Your task to perform on an android device: see creations saved in the google photos Image 0: 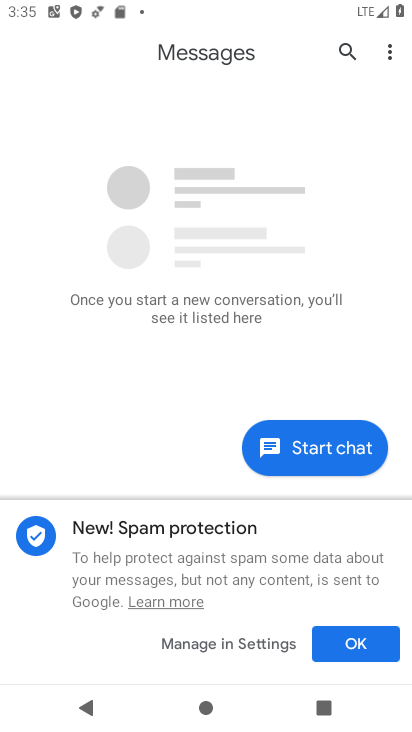
Step 0: press home button
Your task to perform on an android device: see creations saved in the google photos Image 1: 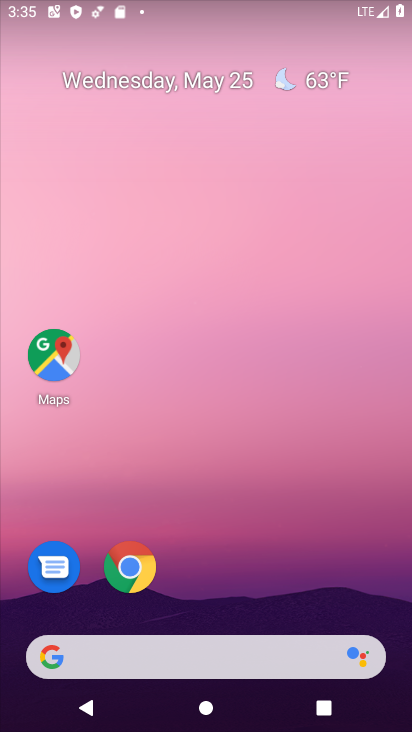
Step 1: drag from (239, 571) to (310, 36)
Your task to perform on an android device: see creations saved in the google photos Image 2: 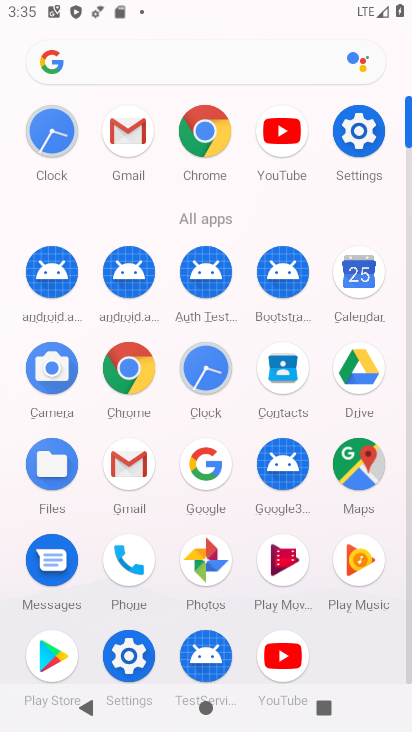
Step 2: click (201, 562)
Your task to perform on an android device: see creations saved in the google photos Image 3: 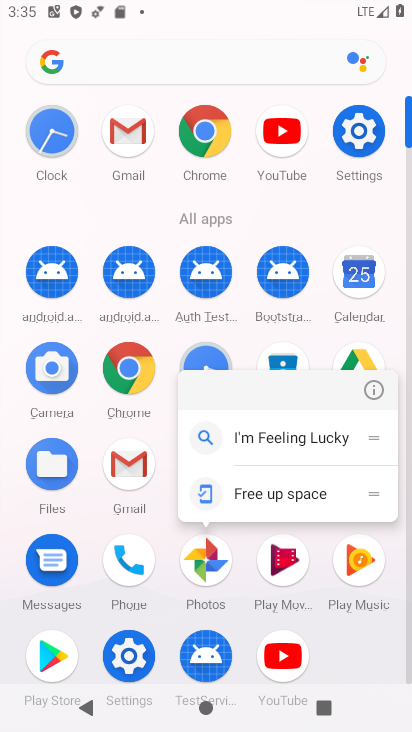
Step 3: click (201, 552)
Your task to perform on an android device: see creations saved in the google photos Image 4: 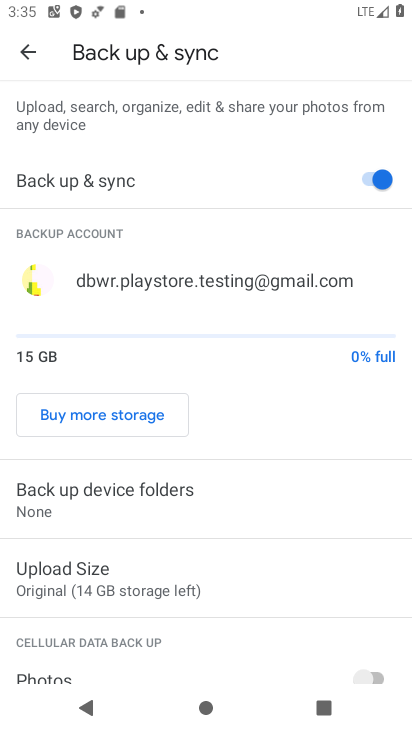
Step 4: press home button
Your task to perform on an android device: see creations saved in the google photos Image 5: 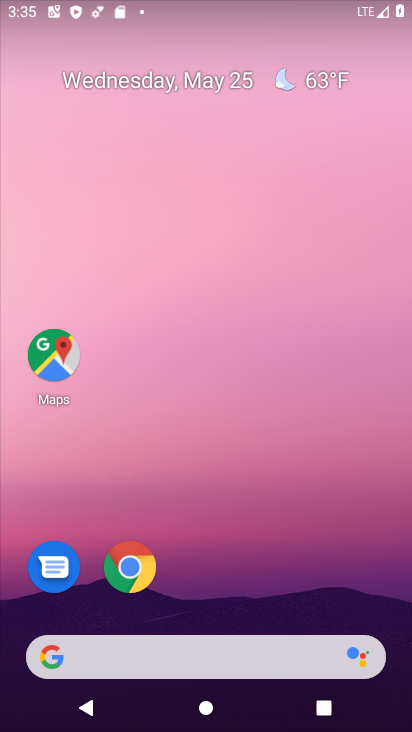
Step 5: drag from (232, 606) to (305, 74)
Your task to perform on an android device: see creations saved in the google photos Image 6: 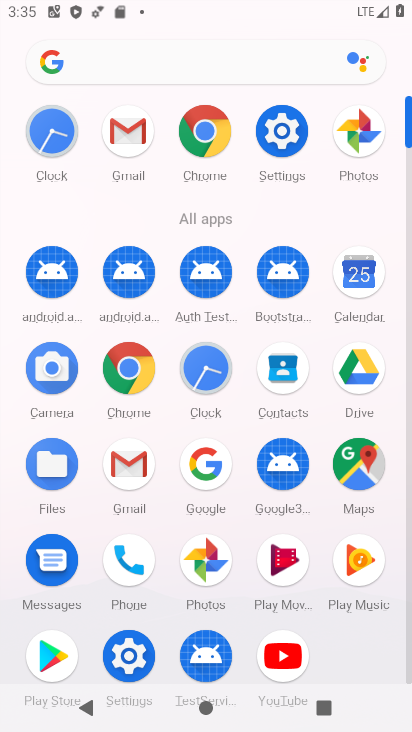
Step 6: click (206, 554)
Your task to perform on an android device: see creations saved in the google photos Image 7: 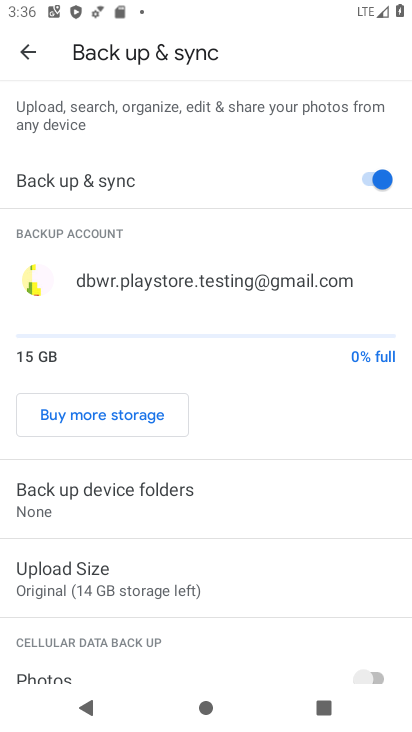
Step 7: click (21, 54)
Your task to perform on an android device: see creations saved in the google photos Image 8: 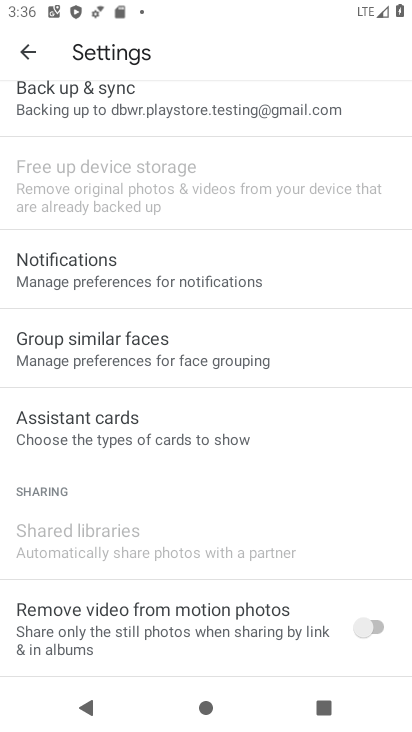
Step 8: click (24, 53)
Your task to perform on an android device: see creations saved in the google photos Image 9: 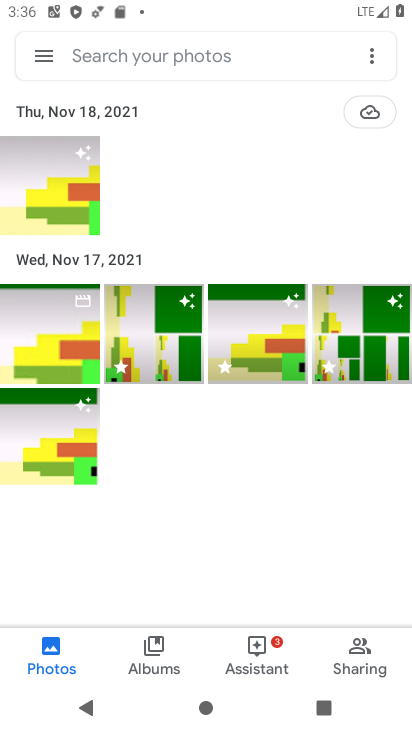
Step 9: click (104, 53)
Your task to perform on an android device: see creations saved in the google photos Image 10: 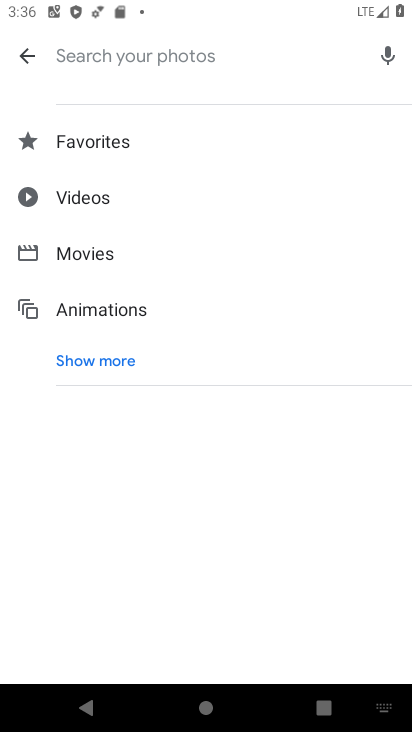
Step 10: click (127, 363)
Your task to perform on an android device: see creations saved in the google photos Image 11: 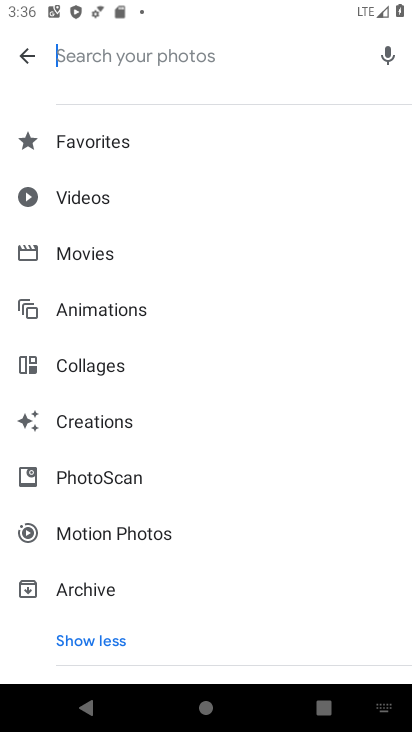
Step 11: click (100, 424)
Your task to perform on an android device: see creations saved in the google photos Image 12: 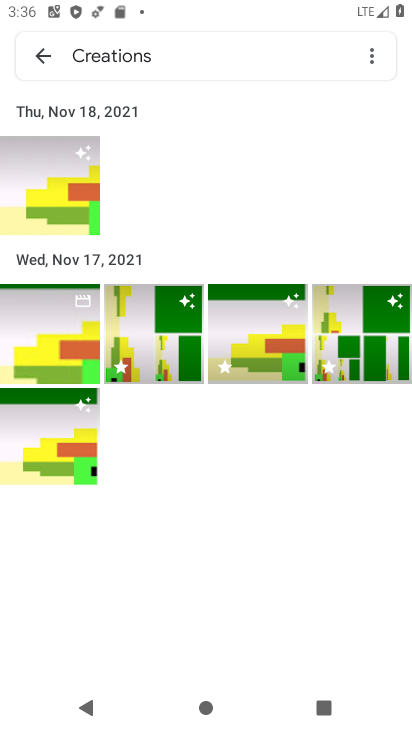
Step 12: task complete